Your task to perform on an android device: toggle improve location accuracy Image 0: 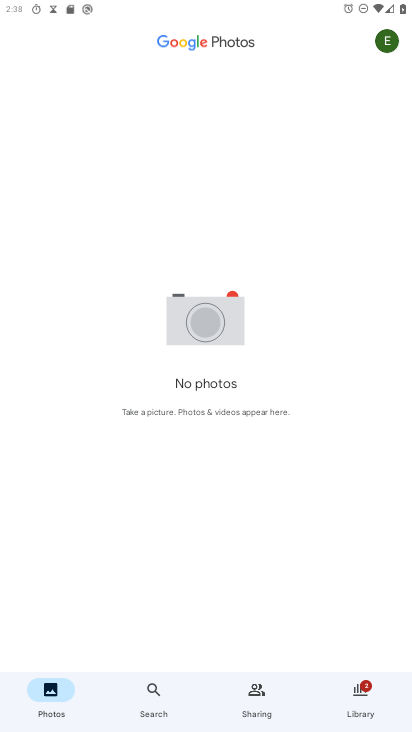
Step 0: press home button
Your task to perform on an android device: toggle improve location accuracy Image 1: 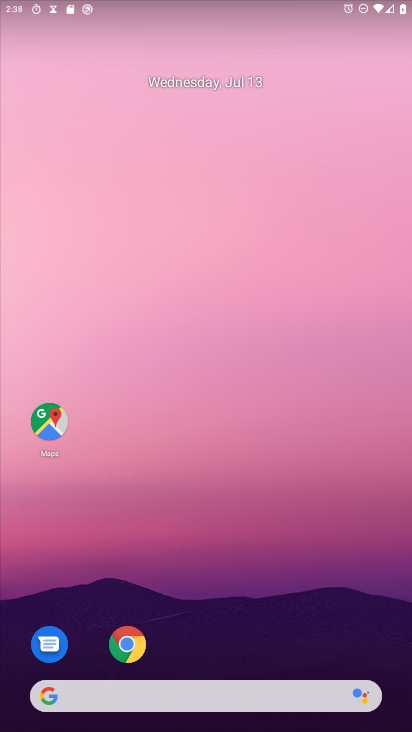
Step 1: drag from (270, 613) to (268, 29)
Your task to perform on an android device: toggle improve location accuracy Image 2: 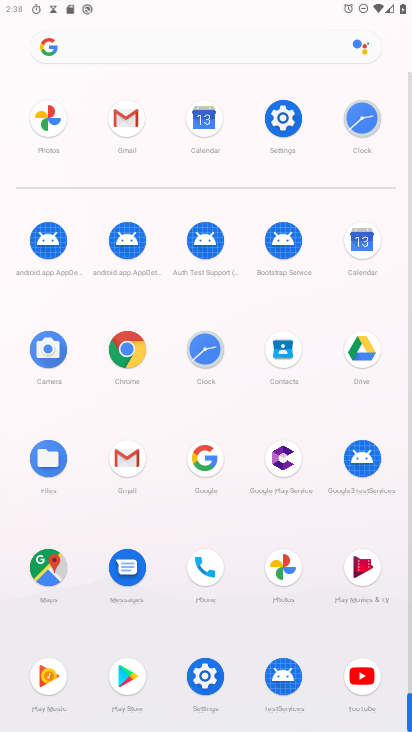
Step 2: click (283, 124)
Your task to perform on an android device: toggle improve location accuracy Image 3: 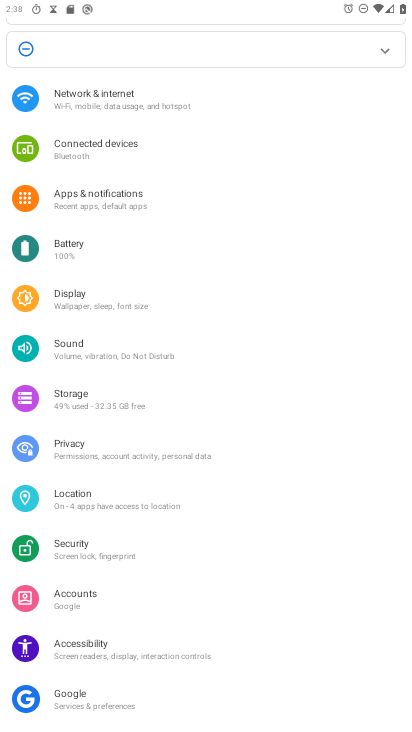
Step 3: click (95, 505)
Your task to perform on an android device: toggle improve location accuracy Image 4: 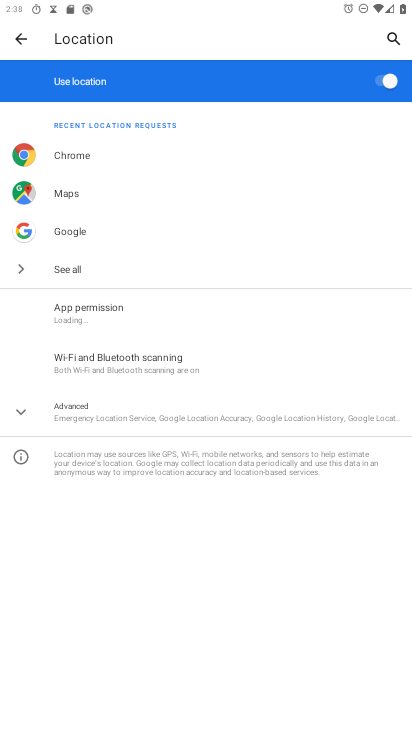
Step 4: click (24, 411)
Your task to perform on an android device: toggle improve location accuracy Image 5: 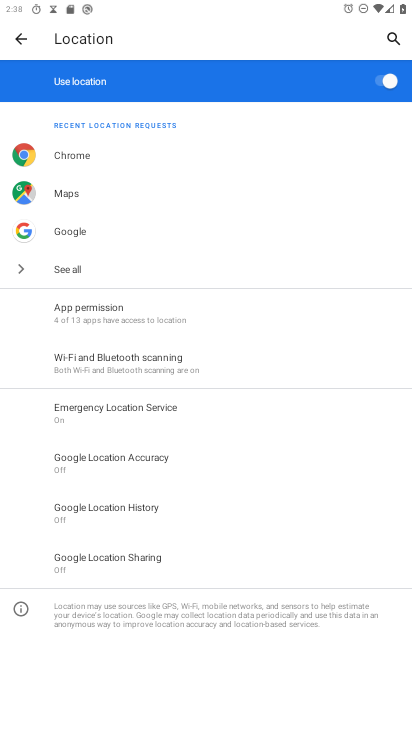
Step 5: click (129, 456)
Your task to perform on an android device: toggle improve location accuracy Image 6: 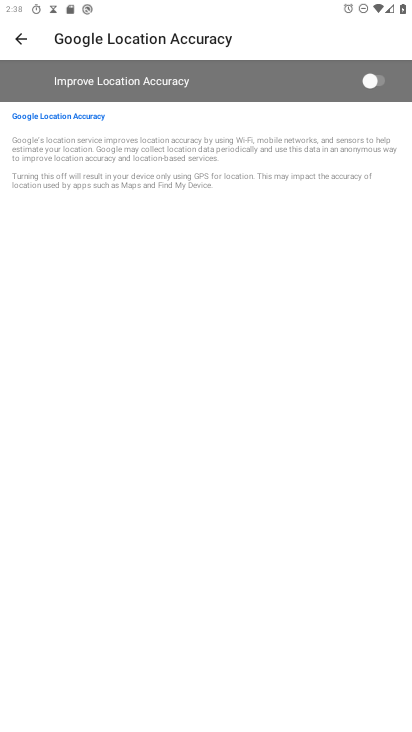
Step 6: click (376, 78)
Your task to perform on an android device: toggle improve location accuracy Image 7: 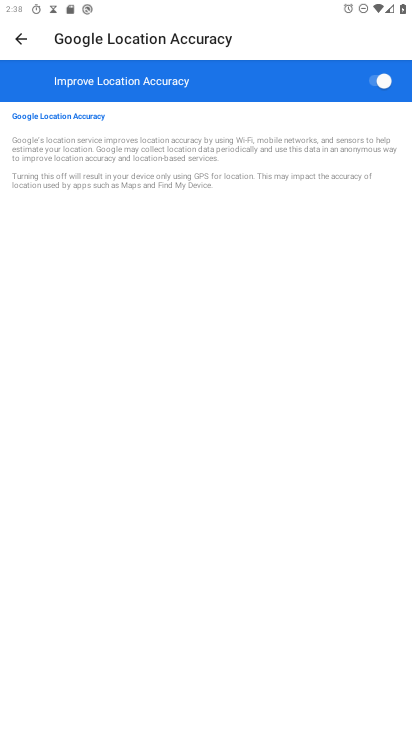
Step 7: task complete